Your task to perform on an android device: find which apps use the phone's location Image 0: 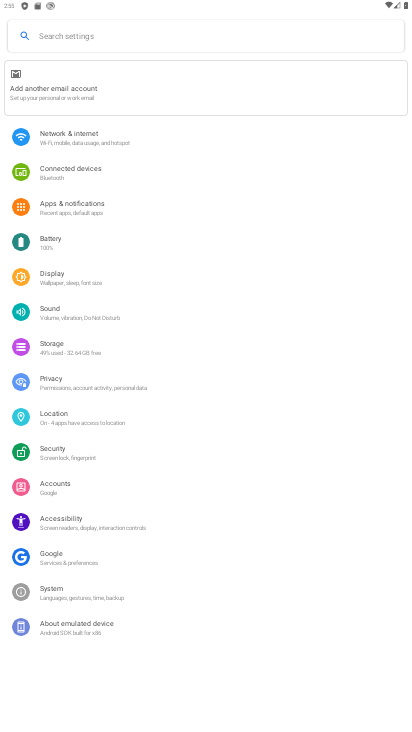
Step 0: press home button
Your task to perform on an android device: find which apps use the phone's location Image 1: 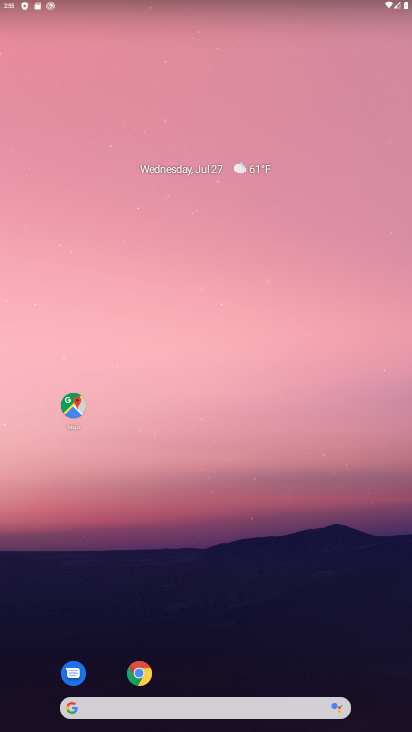
Step 1: drag from (315, 672) to (207, 99)
Your task to perform on an android device: find which apps use the phone's location Image 2: 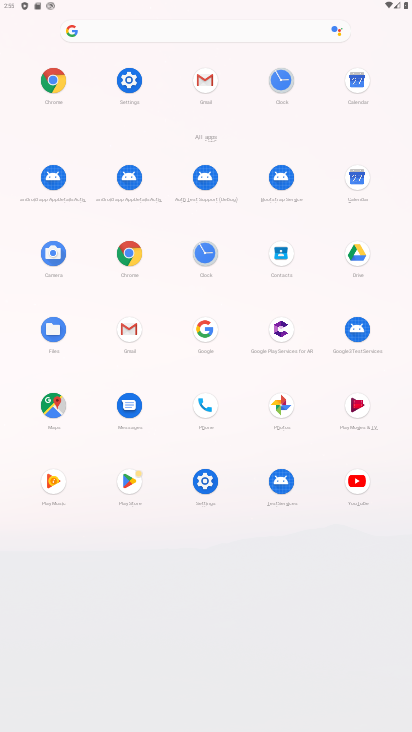
Step 2: click (210, 482)
Your task to perform on an android device: find which apps use the phone's location Image 3: 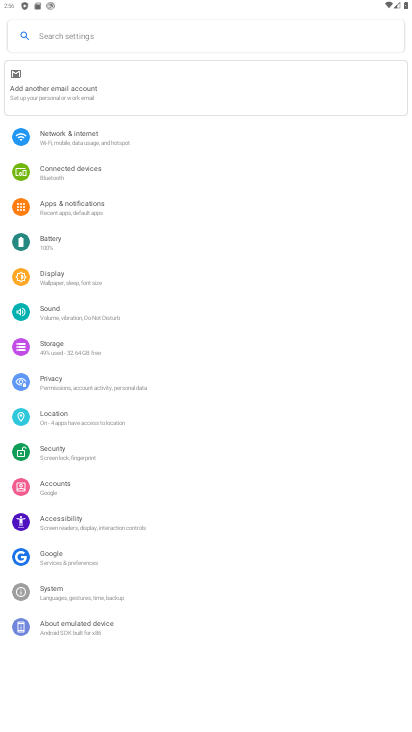
Step 3: click (64, 412)
Your task to perform on an android device: find which apps use the phone's location Image 4: 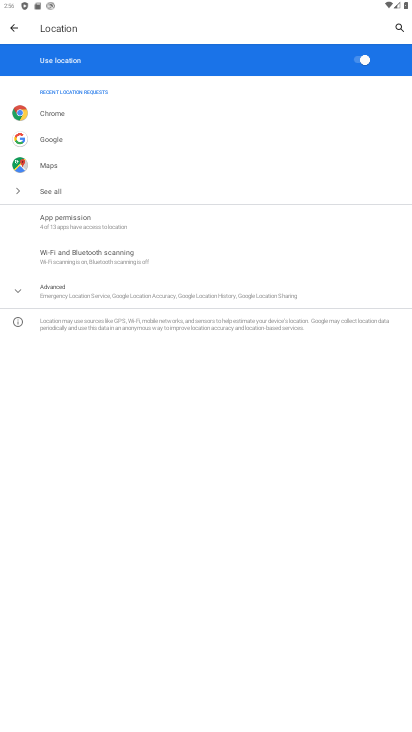
Step 4: click (154, 223)
Your task to perform on an android device: find which apps use the phone's location Image 5: 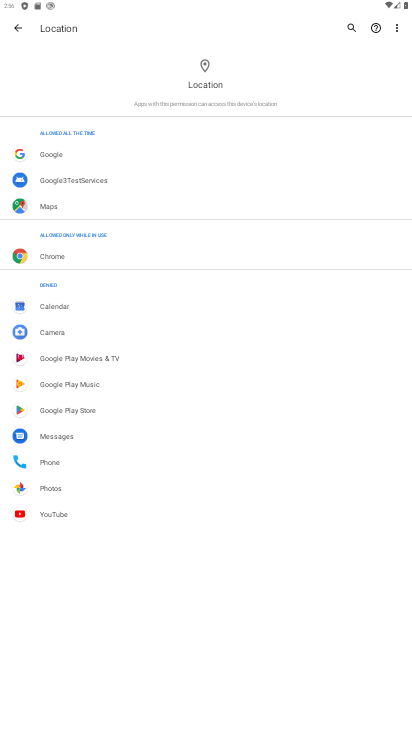
Step 5: task complete